Your task to perform on an android device: Go to calendar. Show me events next week Image 0: 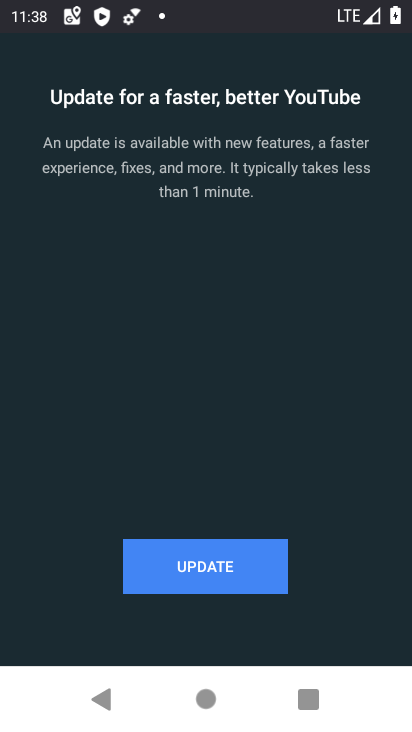
Step 0: press home button
Your task to perform on an android device: Go to calendar. Show me events next week Image 1: 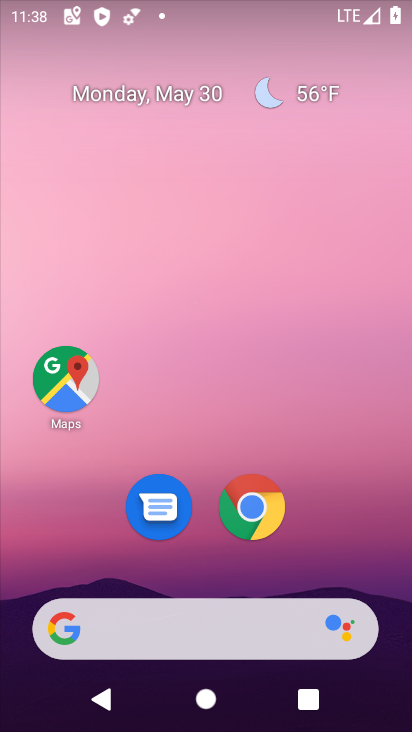
Step 1: drag from (381, 578) to (372, 193)
Your task to perform on an android device: Go to calendar. Show me events next week Image 2: 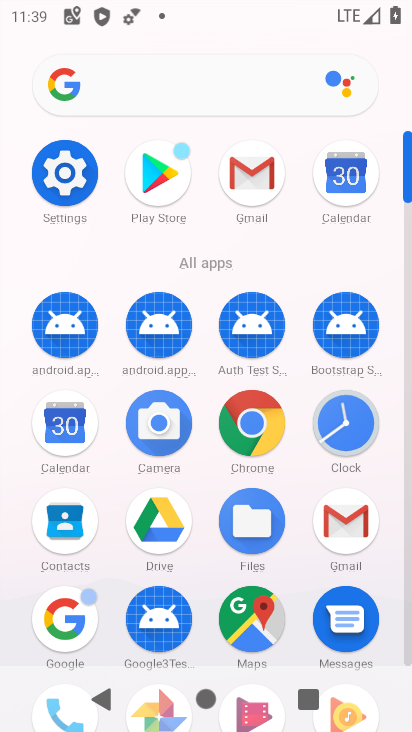
Step 2: click (50, 420)
Your task to perform on an android device: Go to calendar. Show me events next week Image 3: 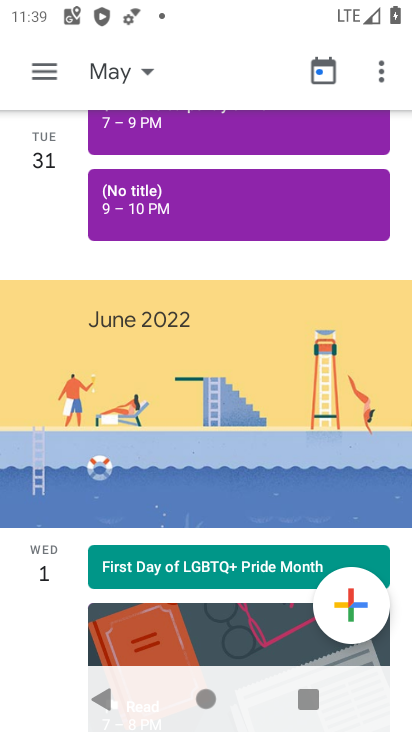
Step 3: click (44, 75)
Your task to perform on an android device: Go to calendar. Show me events next week Image 4: 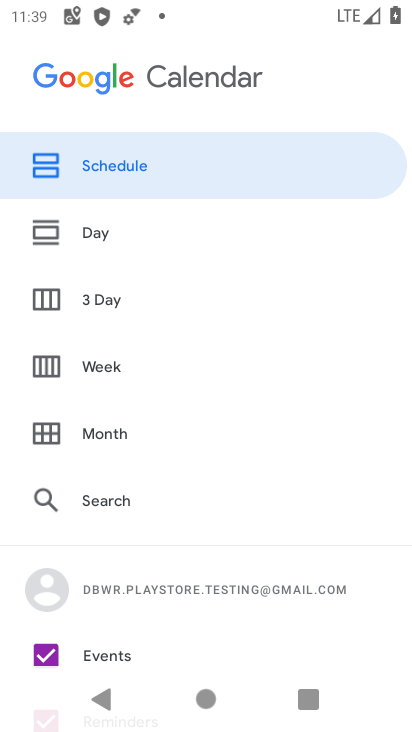
Step 4: click (199, 660)
Your task to perform on an android device: Go to calendar. Show me events next week Image 5: 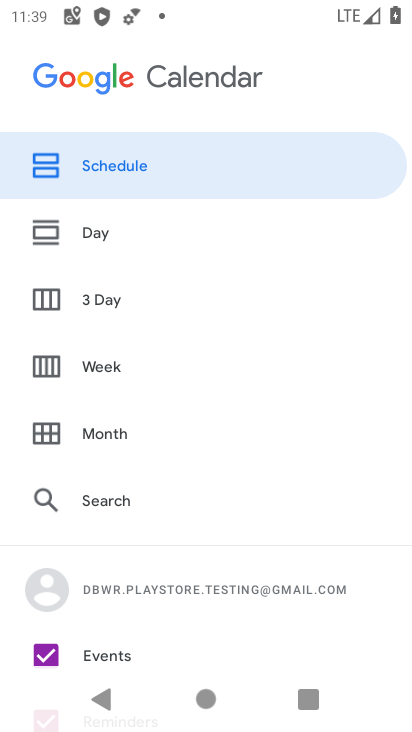
Step 5: click (125, 158)
Your task to perform on an android device: Go to calendar. Show me events next week Image 6: 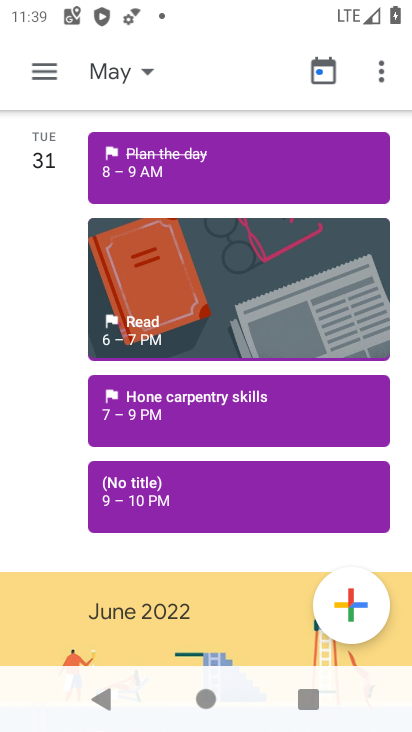
Step 6: task complete